Your task to perform on an android device: Open wifi settings Image 0: 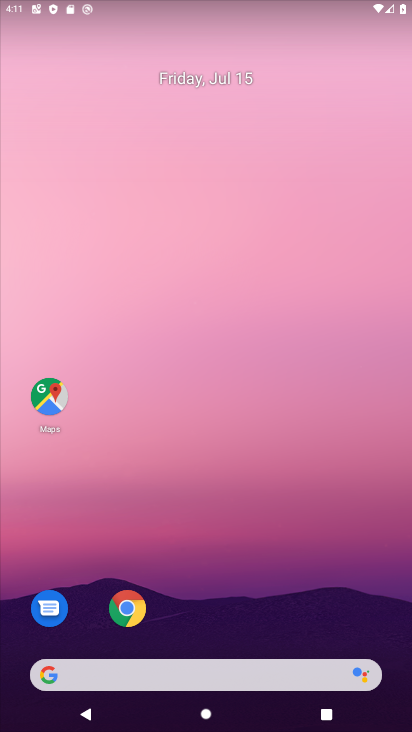
Step 0: drag from (260, 660) to (189, 4)
Your task to perform on an android device: Open wifi settings Image 1: 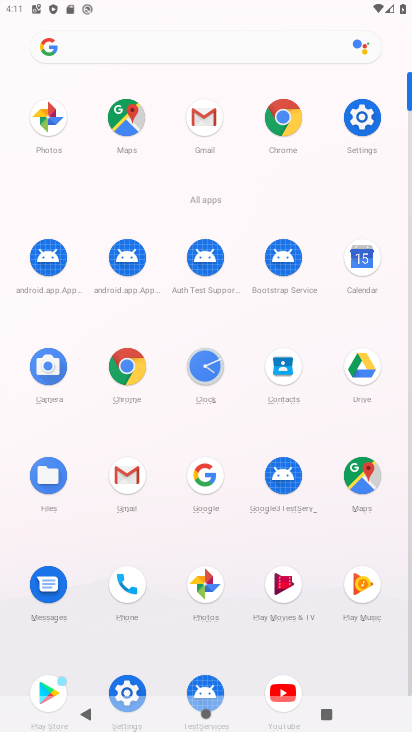
Step 1: click (130, 687)
Your task to perform on an android device: Open wifi settings Image 2: 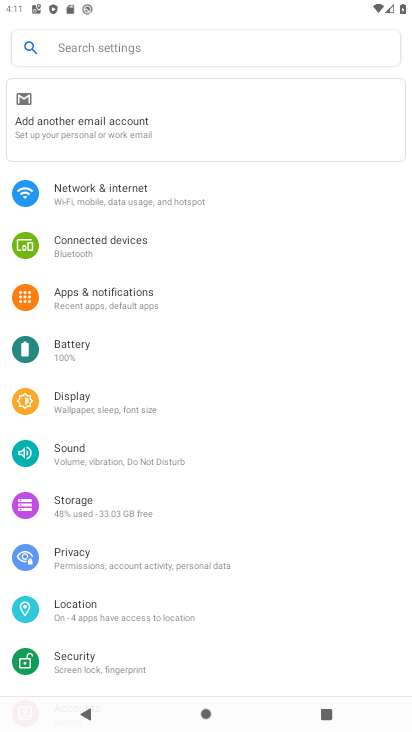
Step 2: click (126, 200)
Your task to perform on an android device: Open wifi settings Image 3: 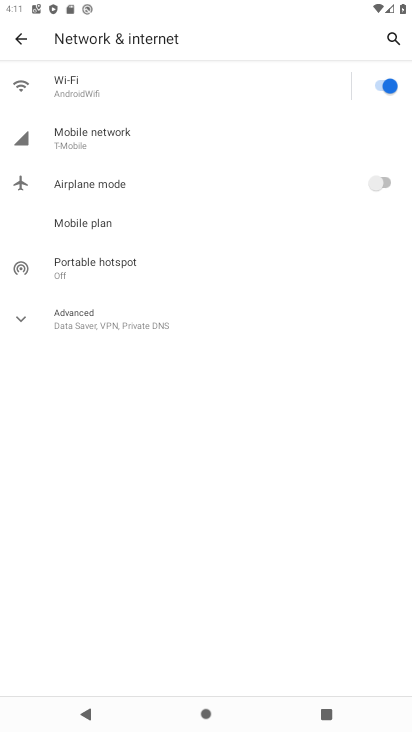
Step 3: click (66, 82)
Your task to perform on an android device: Open wifi settings Image 4: 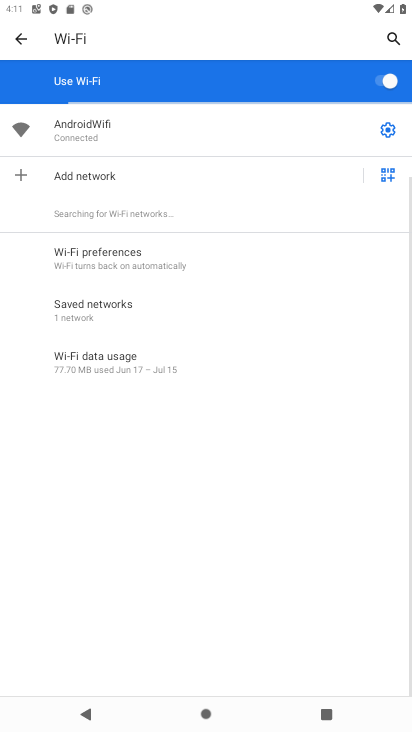
Step 4: task complete